Your task to perform on an android device: Add logitech g pro to the cart on amazon, then select checkout. Image 0: 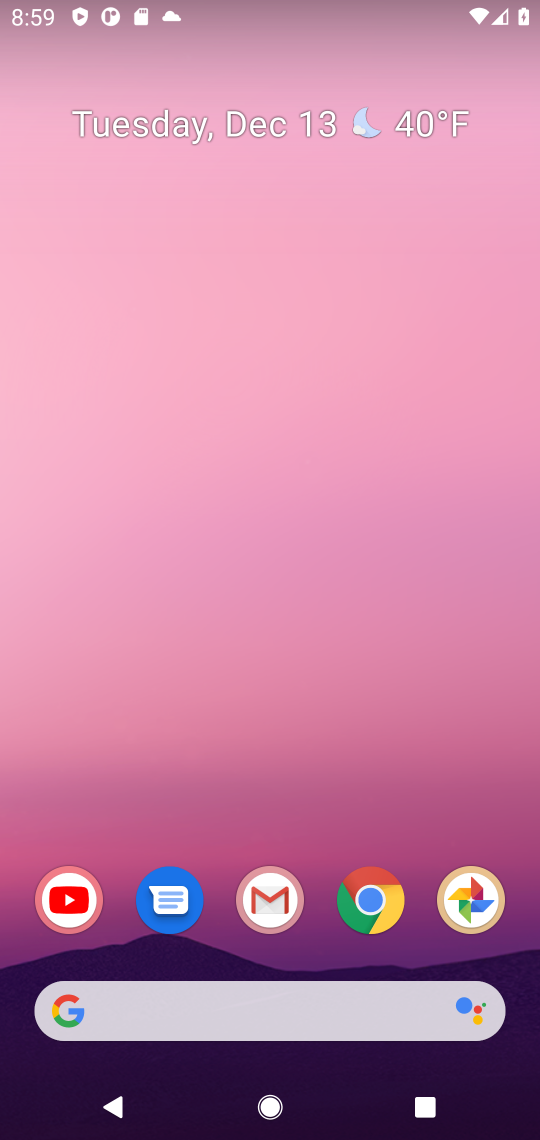
Step 0: click (369, 901)
Your task to perform on an android device: Add logitech g pro to the cart on amazon, then select checkout. Image 1: 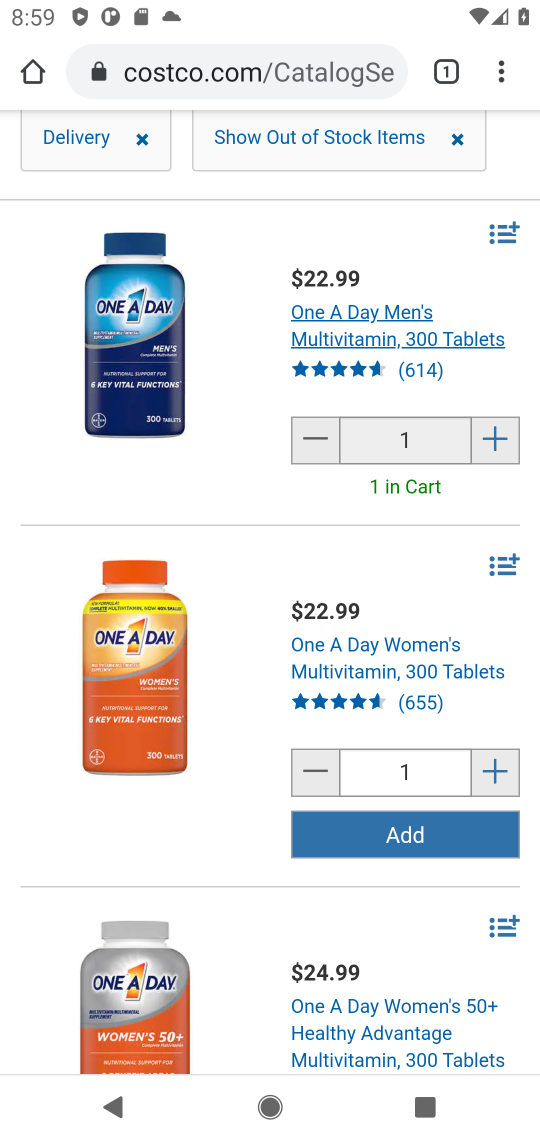
Step 1: click (298, 77)
Your task to perform on an android device: Add logitech g pro to the cart on amazon, then select checkout. Image 2: 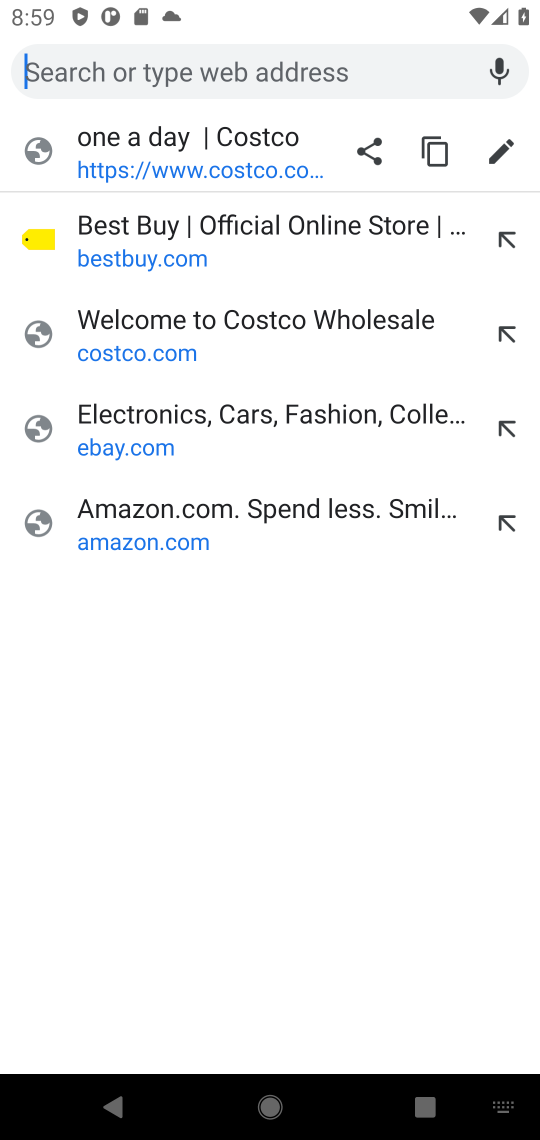
Step 2: type "AMAZON"
Your task to perform on an android device: Add logitech g pro to the cart on amazon, then select checkout. Image 3: 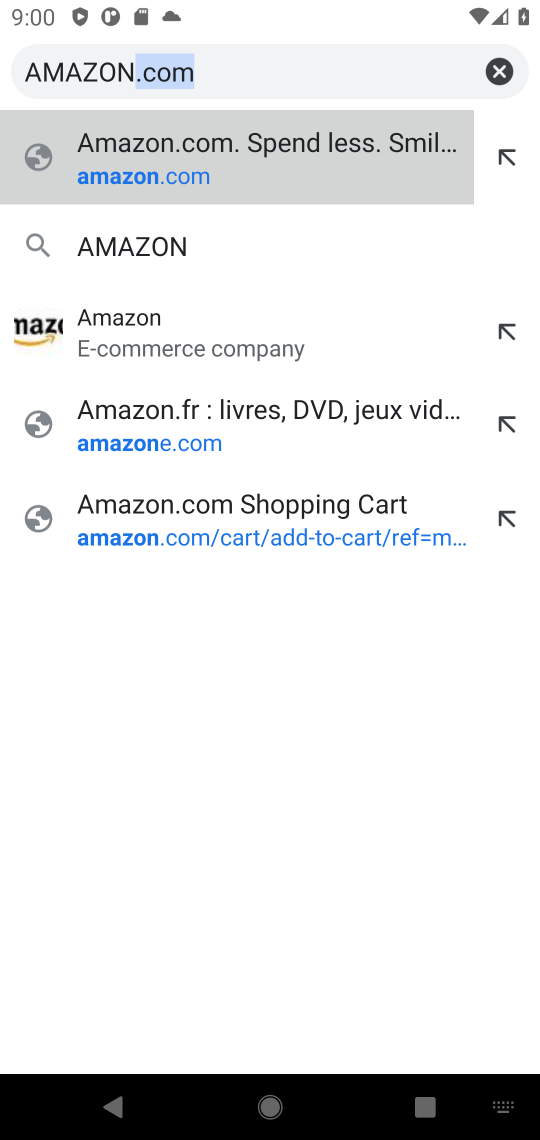
Step 3: click (205, 182)
Your task to perform on an android device: Add logitech g pro to the cart on amazon, then select checkout. Image 4: 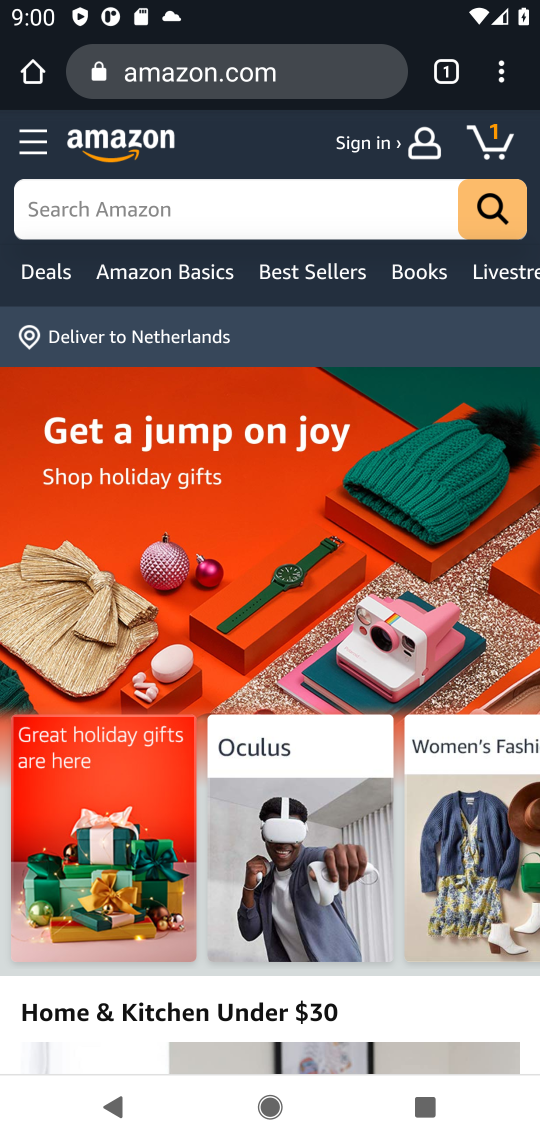
Step 4: click (292, 212)
Your task to perform on an android device: Add logitech g pro to the cart on amazon, then select checkout. Image 5: 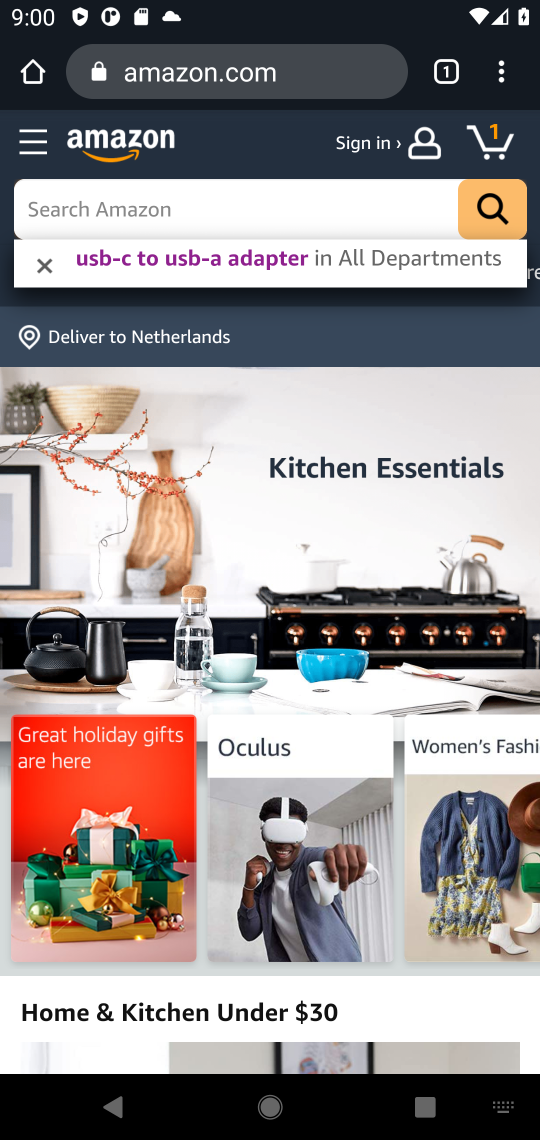
Step 5: type "LOGITECH G PRO"
Your task to perform on an android device: Add logitech g pro to the cart on amazon, then select checkout. Image 6: 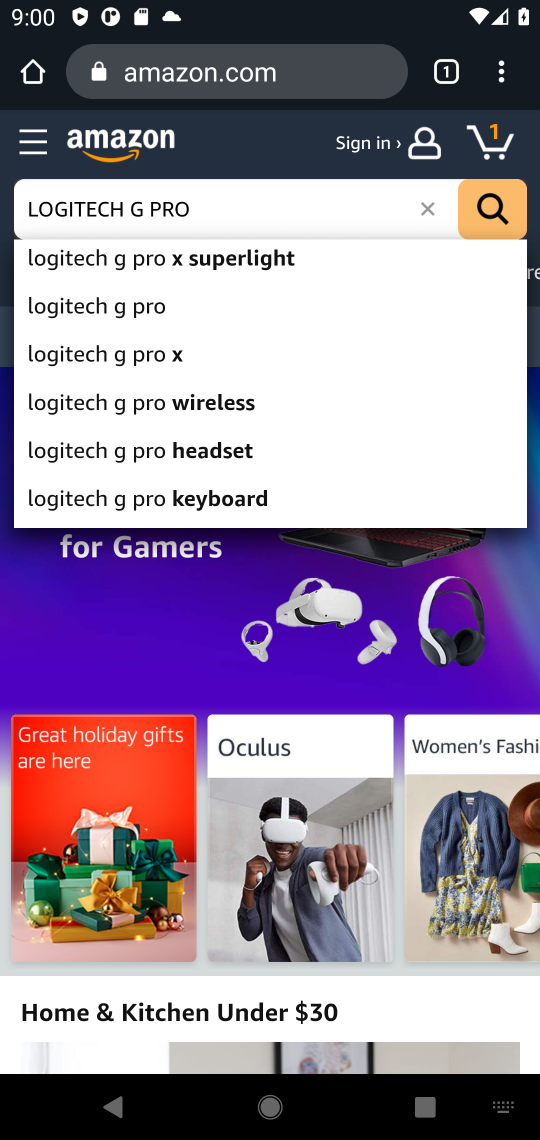
Step 6: click (173, 271)
Your task to perform on an android device: Add logitech g pro to the cart on amazon, then select checkout. Image 7: 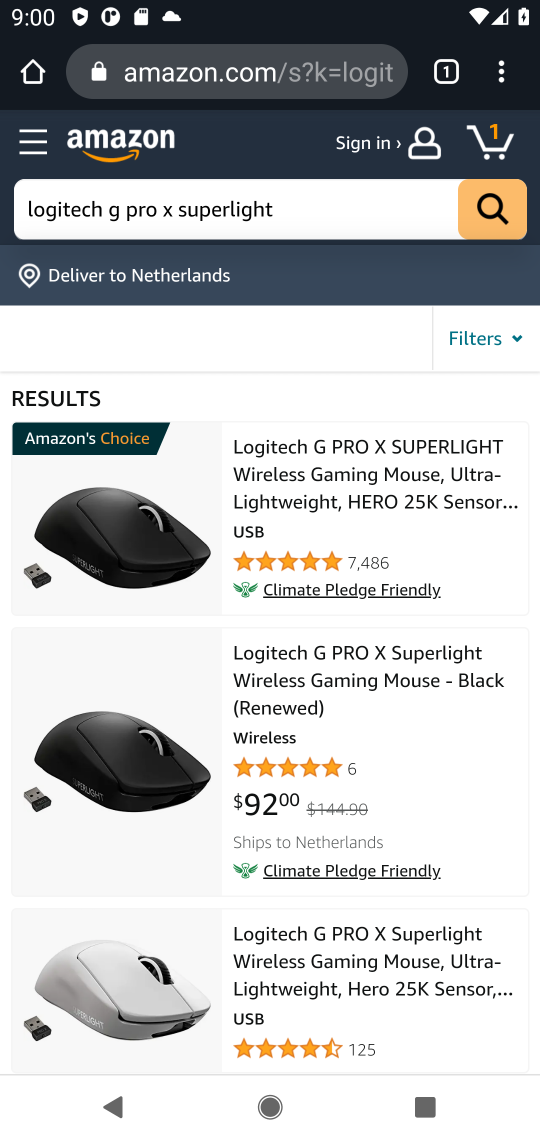
Step 7: click (411, 466)
Your task to perform on an android device: Add logitech g pro to the cart on amazon, then select checkout. Image 8: 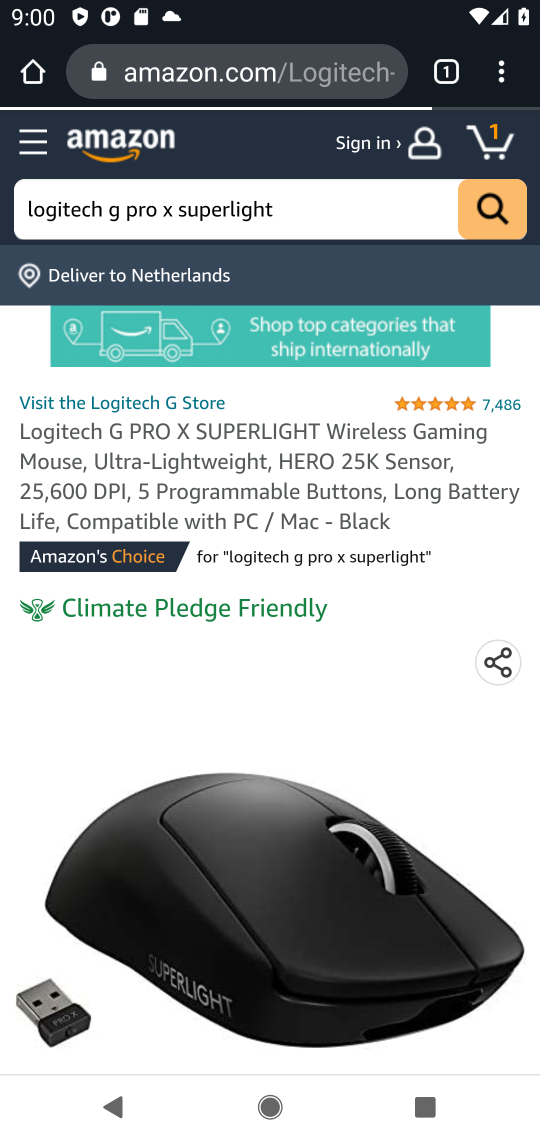
Step 8: task complete